Your task to perform on an android device: Open Amazon Image 0: 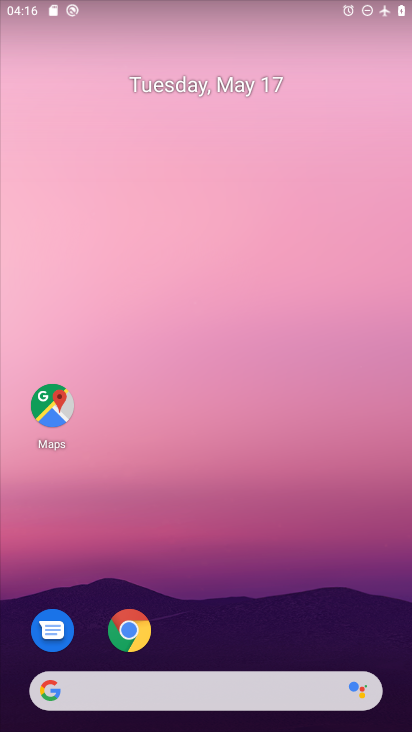
Step 0: click (108, 629)
Your task to perform on an android device: Open Amazon Image 1: 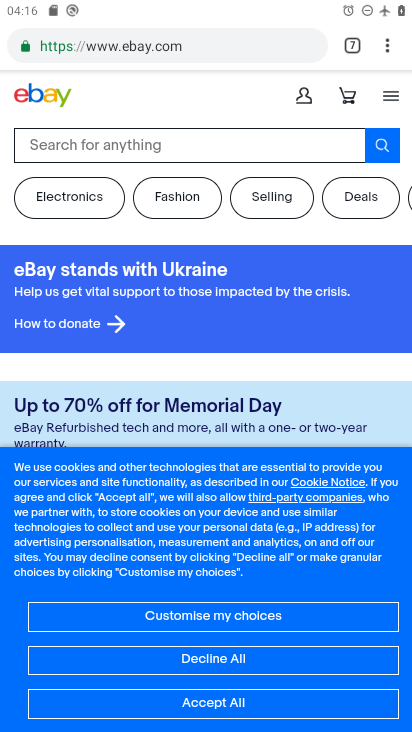
Step 1: click (358, 33)
Your task to perform on an android device: Open Amazon Image 2: 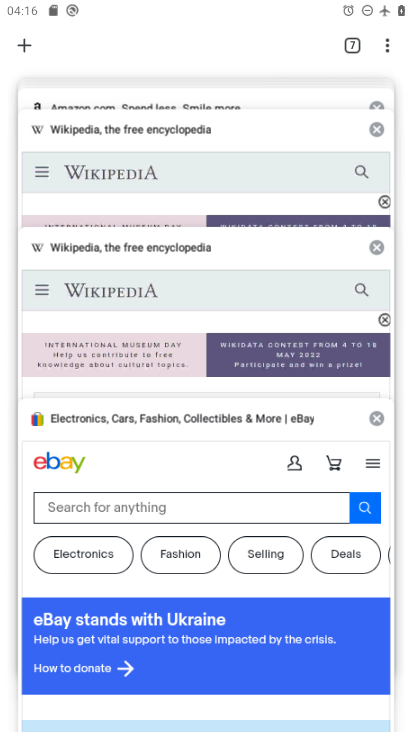
Step 2: drag from (161, 130) to (150, 498)
Your task to perform on an android device: Open Amazon Image 3: 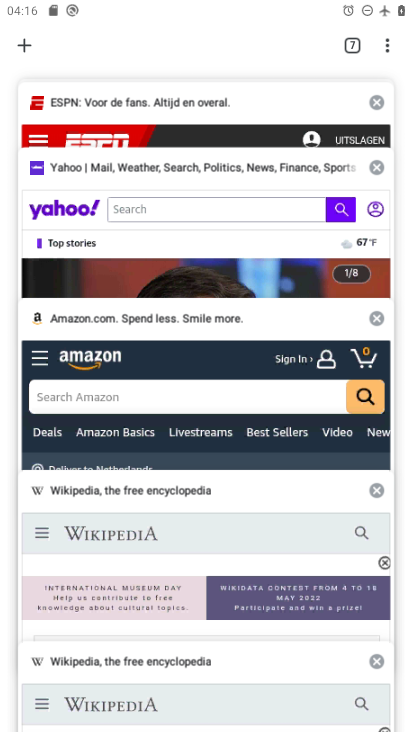
Step 3: click (64, 313)
Your task to perform on an android device: Open Amazon Image 4: 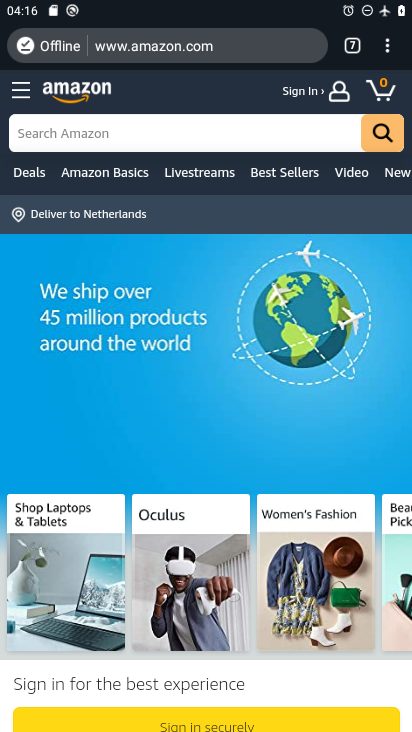
Step 4: task complete